Your task to perform on an android device: remove spam from my inbox in the gmail app Image 0: 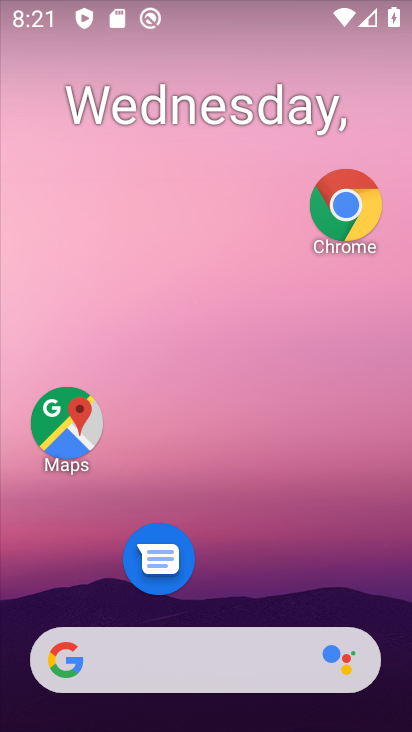
Step 0: drag from (236, 569) to (301, 121)
Your task to perform on an android device: remove spam from my inbox in the gmail app Image 1: 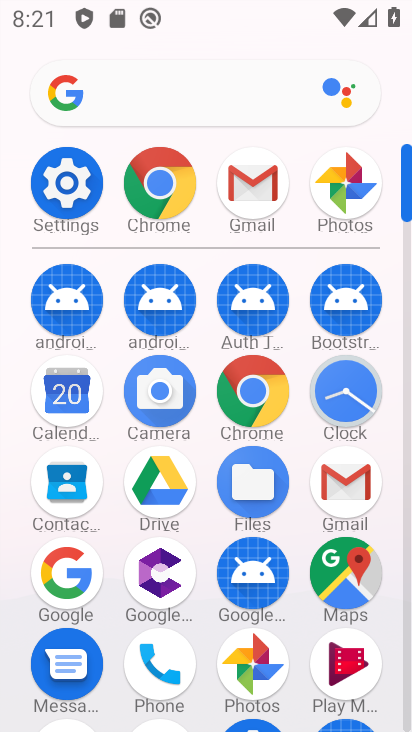
Step 1: click (350, 499)
Your task to perform on an android device: remove spam from my inbox in the gmail app Image 2: 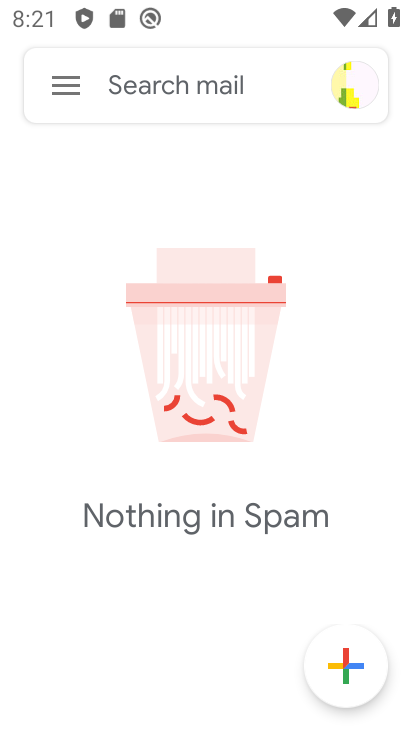
Step 2: click (54, 85)
Your task to perform on an android device: remove spam from my inbox in the gmail app Image 3: 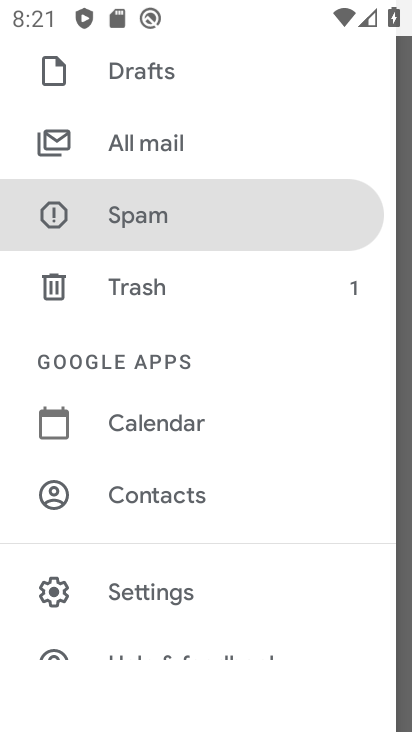
Step 3: click (162, 205)
Your task to perform on an android device: remove spam from my inbox in the gmail app Image 4: 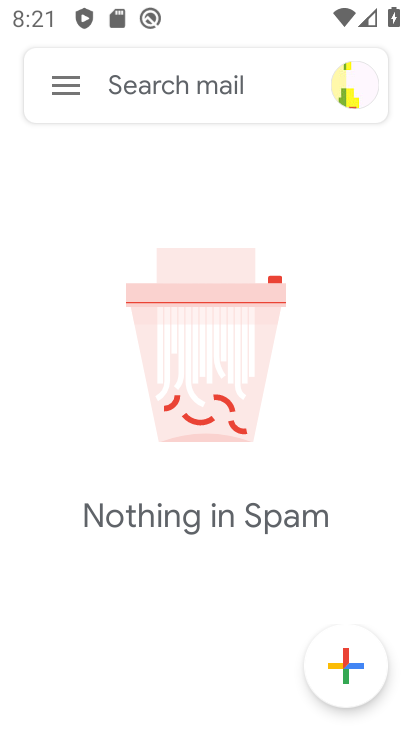
Step 4: click (79, 96)
Your task to perform on an android device: remove spam from my inbox in the gmail app Image 5: 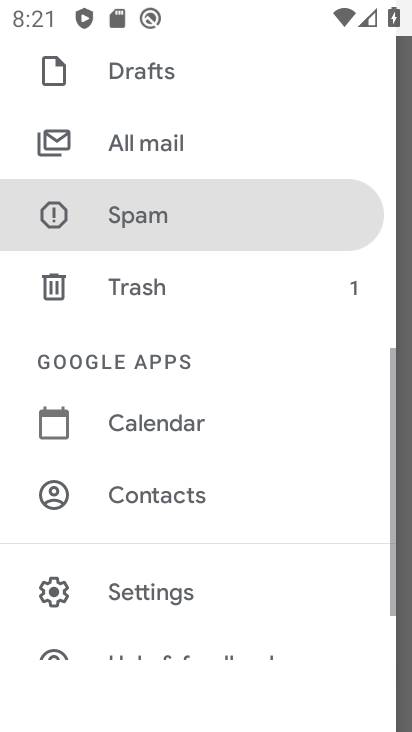
Step 5: click (147, 225)
Your task to perform on an android device: remove spam from my inbox in the gmail app Image 6: 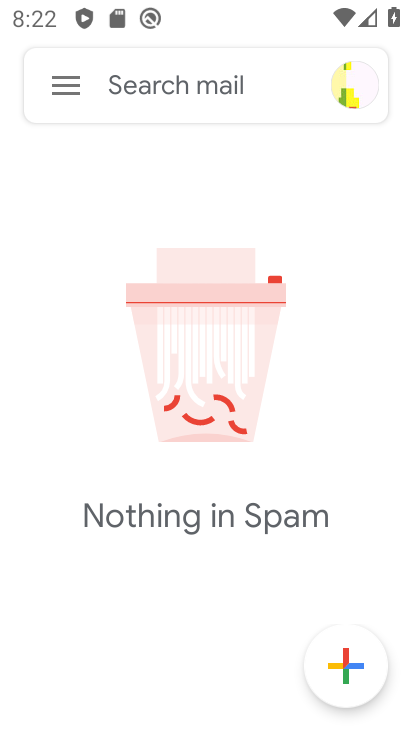
Step 6: click (78, 78)
Your task to perform on an android device: remove spam from my inbox in the gmail app Image 7: 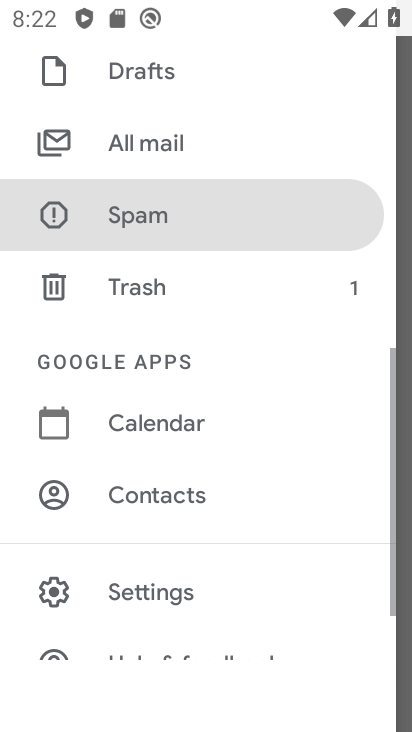
Step 7: click (162, 220)
Your task to perform on an android device: remove spam from my inbox in the gmail app Image 8: 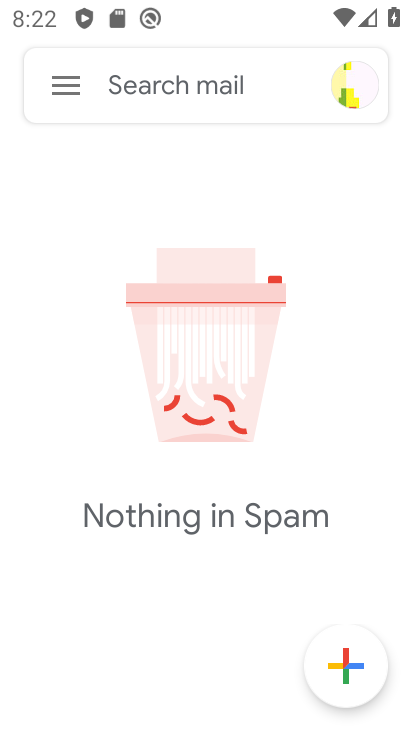
Step 8: task complete